Your task to perform on an android device: Open Yahoo.com Image 0: 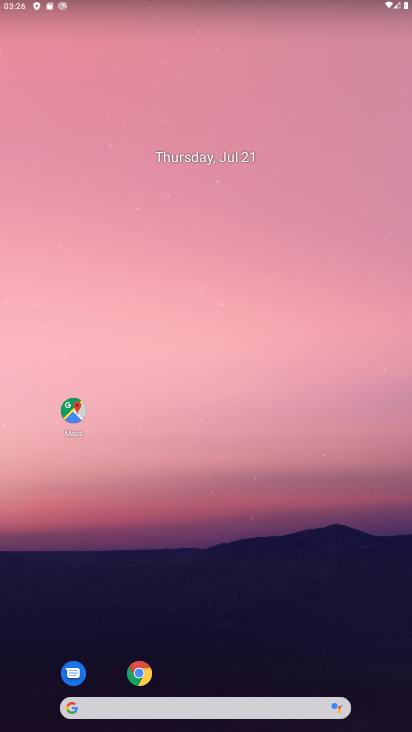
Step 0: drag from (265, 627) to (328, 42)
Your task to perform on an android device: Open Yahoo.com Image 1: 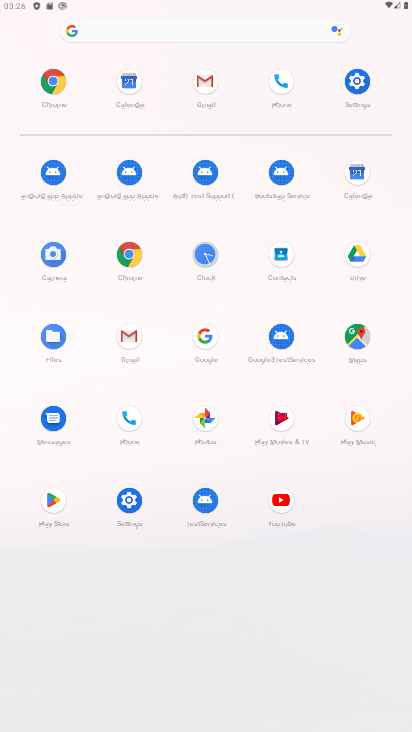
Step 1: click (55, 80)
Your task to perform on an android device: Open Yahoo.com Image 2: 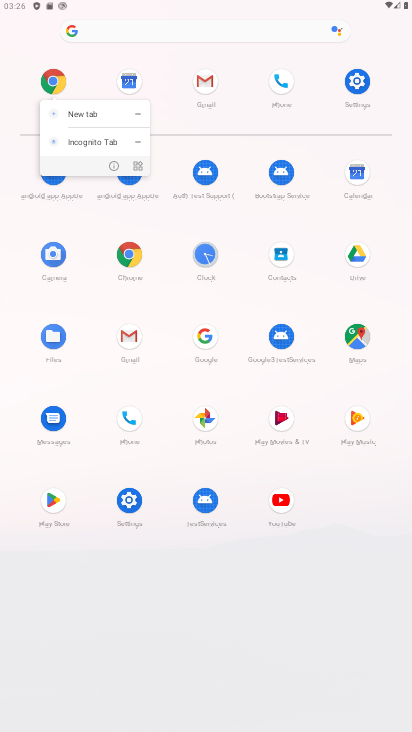
Step 2: click (124, 255)
Your task to perform on an android device: Open Yahoo.com Image 3: 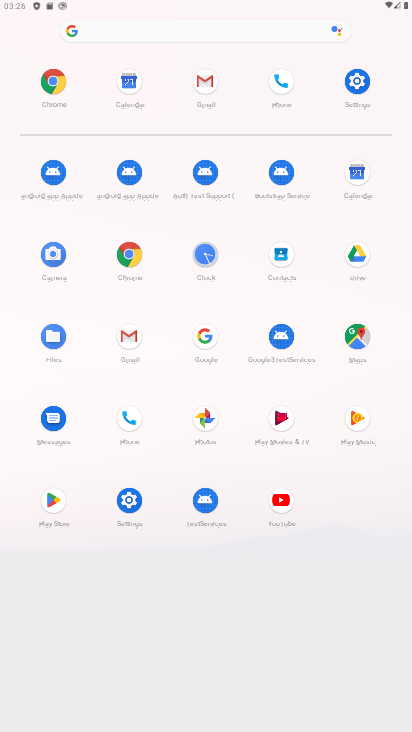
Step 3: click (132, 248)
Your task to perform on an android device: Open Yahoo.com Image 4: 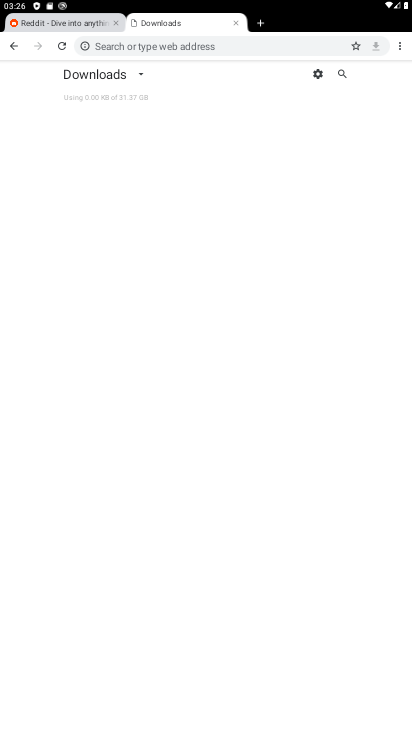
Step 4: click (177, 38)
Your task to perform on an android device: Open Yahoo.com Image 5: 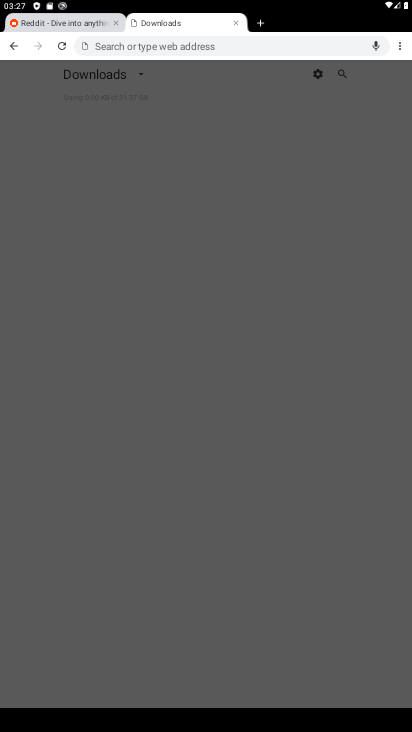
Step 5: type "yahoo.com]"
Your task to perform on an android device: Open Yahoo.com Image 6: 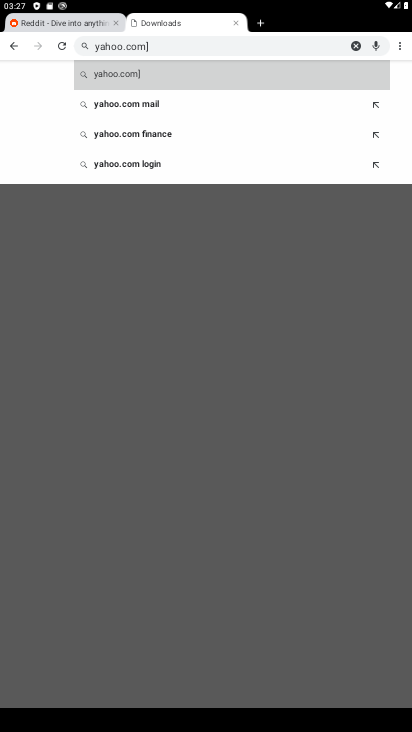
Step 6: click (121, 80)
Your task to perform on an android device: Open Yahoo.com Image 7: 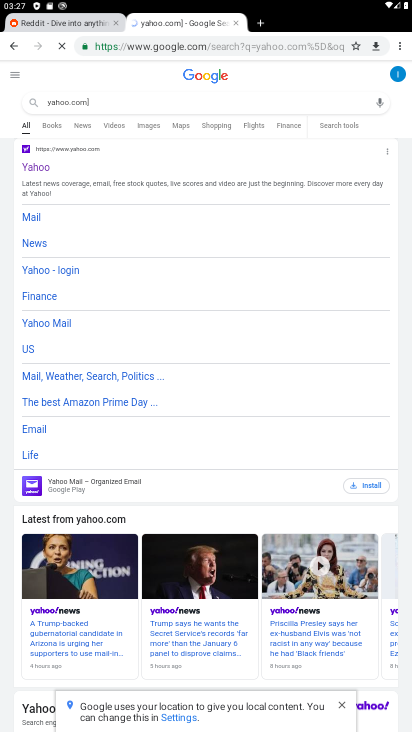
Step 7: click (38, 167)
Your task to perform on an android device: Open Yahoo.com Image 8: 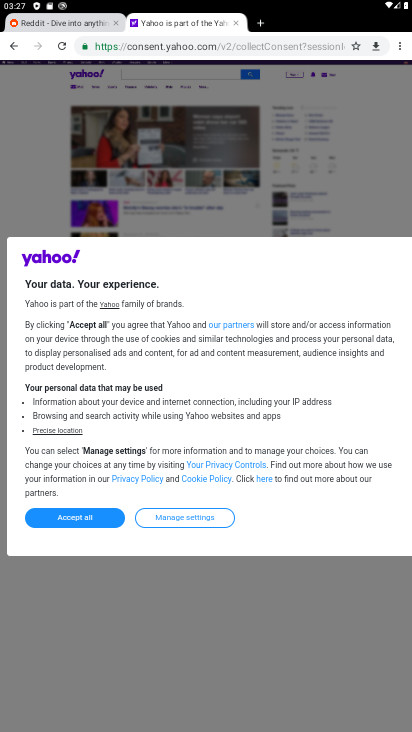
Step 8: task complete